Your task to perform on an android device: uninstall "ColorNote Notepad Notes" Image 0: 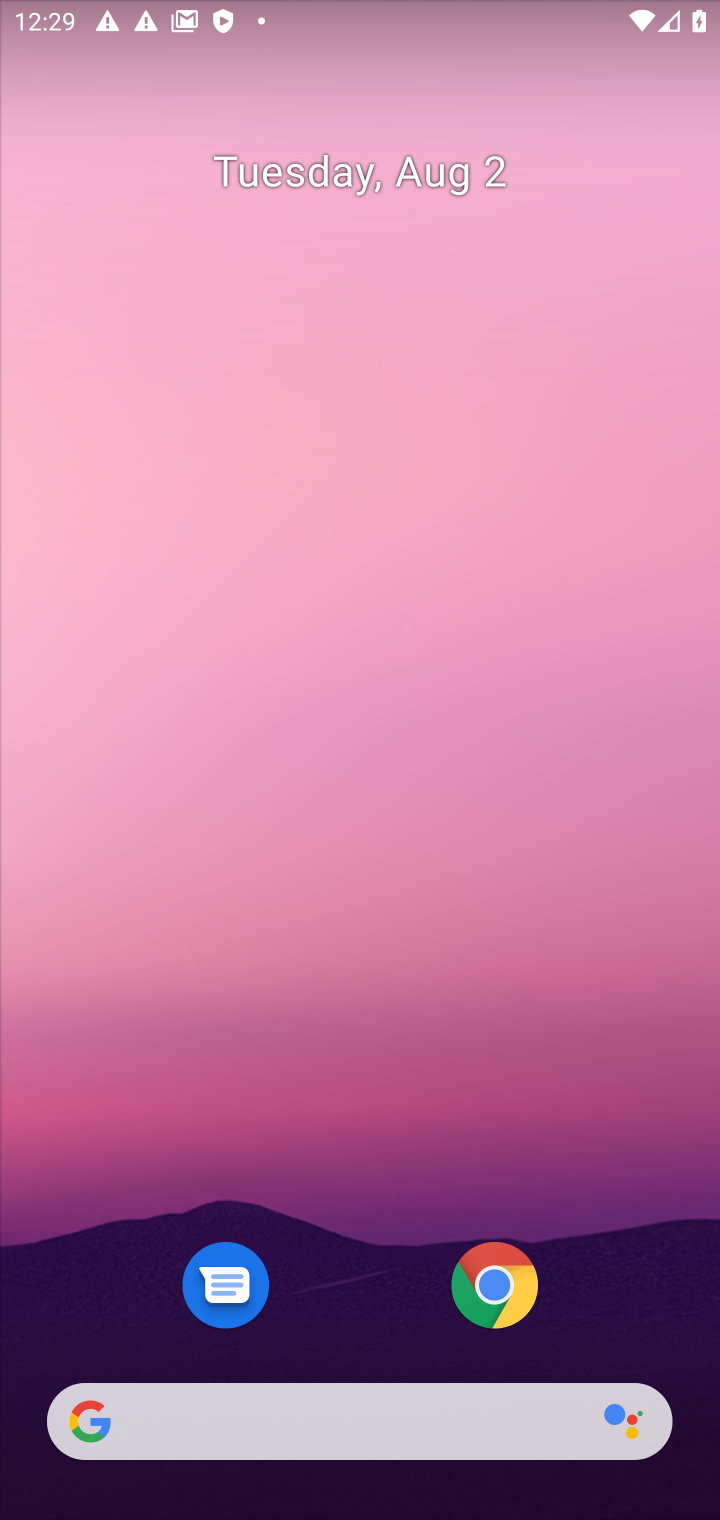
Step 0: drag from (511, 907) to (325, 6)
Your task to perform on an android device: uninstall "ColorNote Notepad Notes" Image 1: 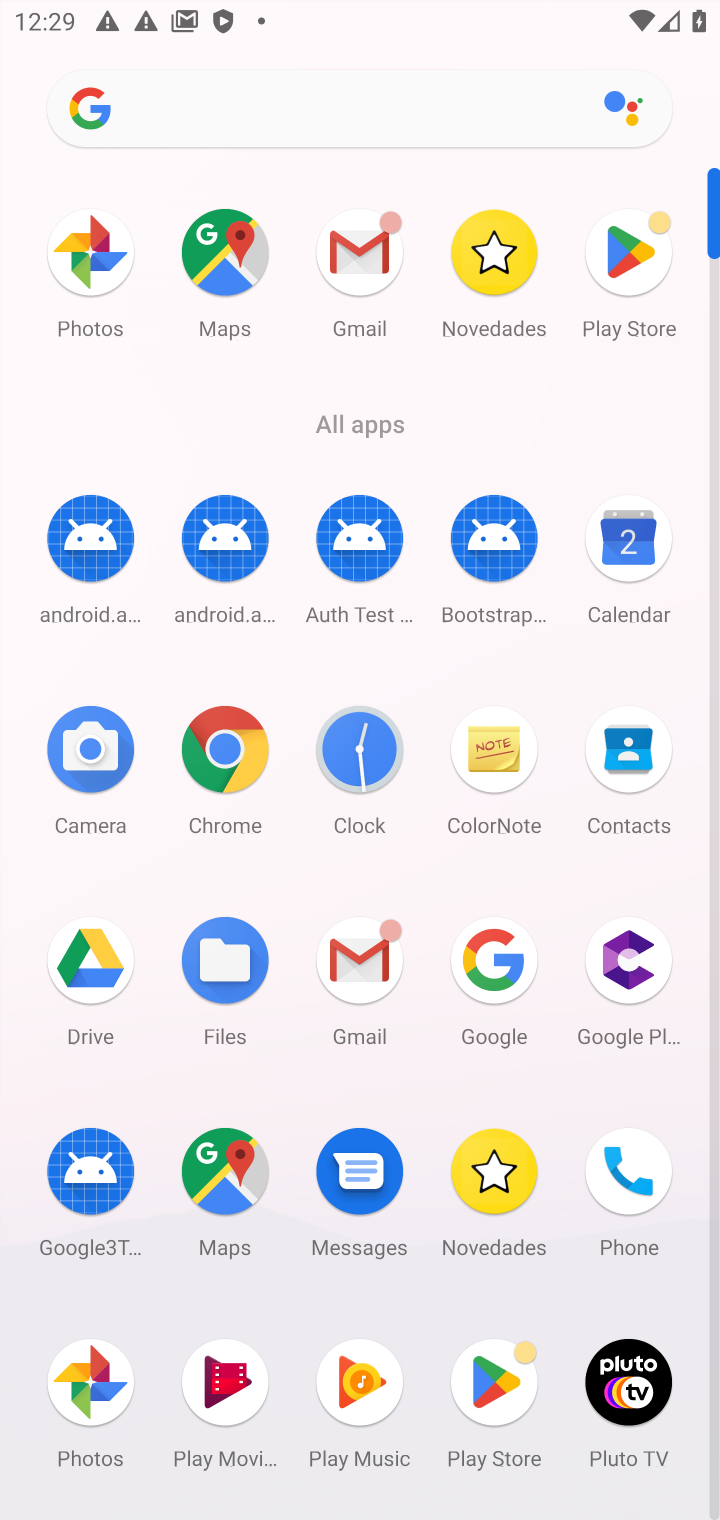
Step 1: click (501, 1381)
Your task to perform on an android device: uninstall "ColorNote Notepad Notes" Image 2: 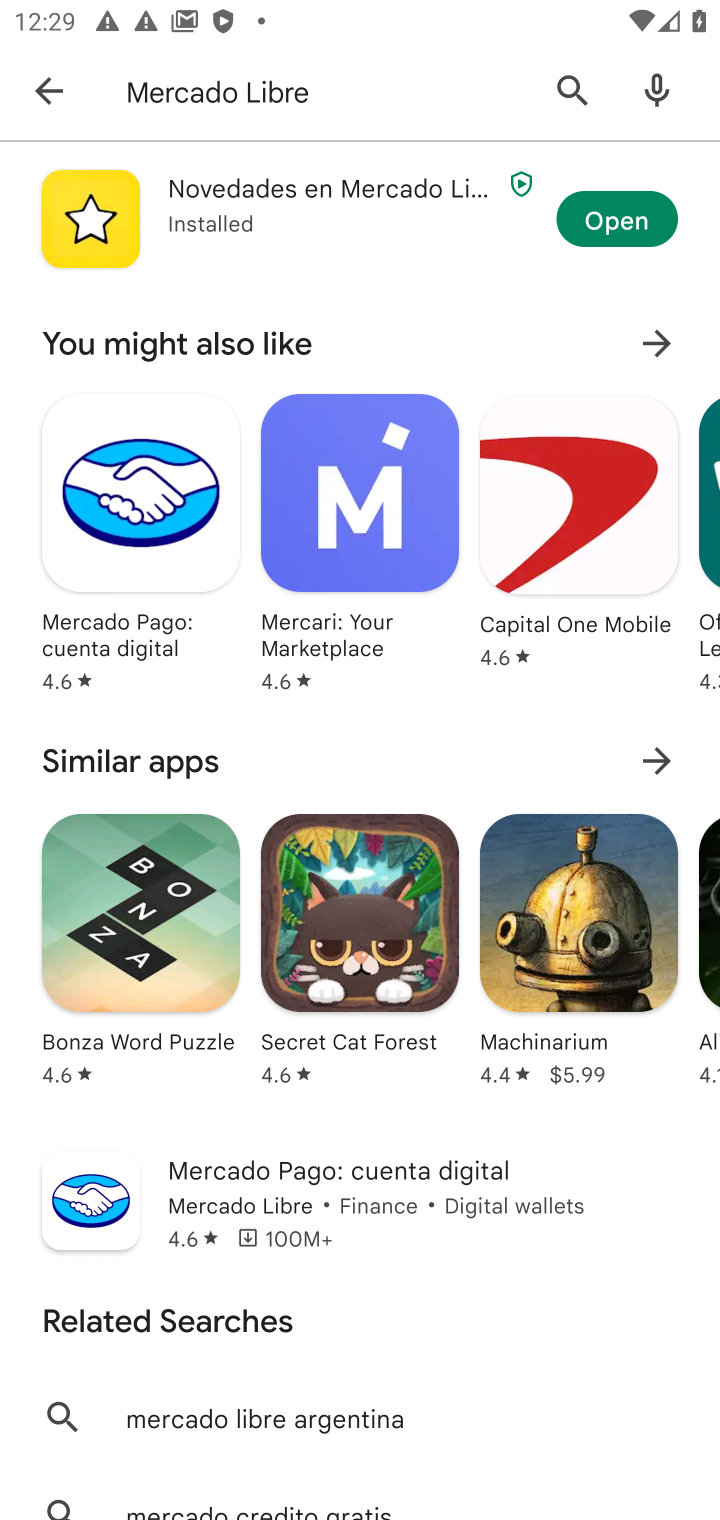
Step 2: click (325, 114)
Your task to perform on an android device: uninstall "ColorNote Notepad Notes" Image 3: 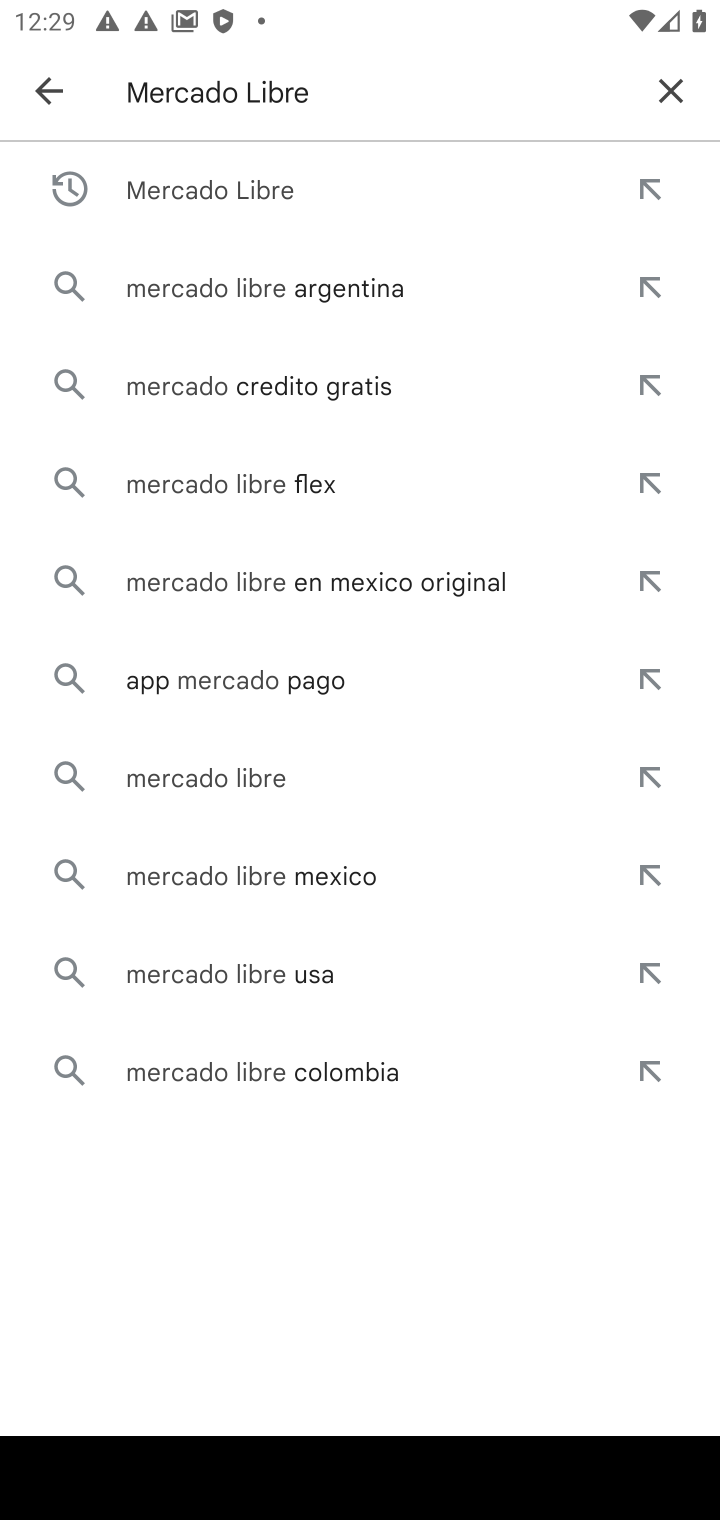
Step 3: click (682, 84)
Your task to perform on an android device: uninstall "ColorNote Notepad Notes" Image 4: 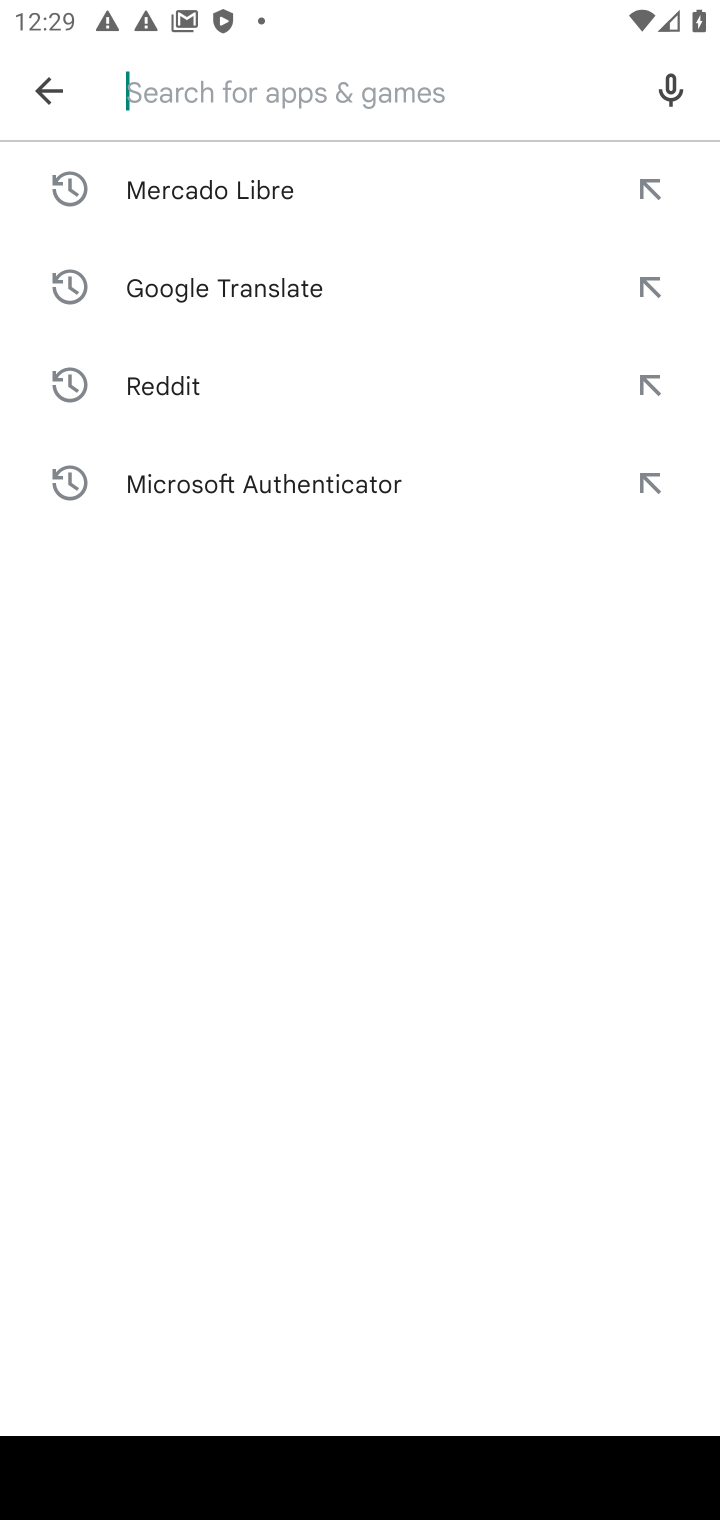
Step 4: type "ColorNote Notepad Notes"
Your task to perform on an android device: uninstall "ColorNote Notepad Notes" Image 5: 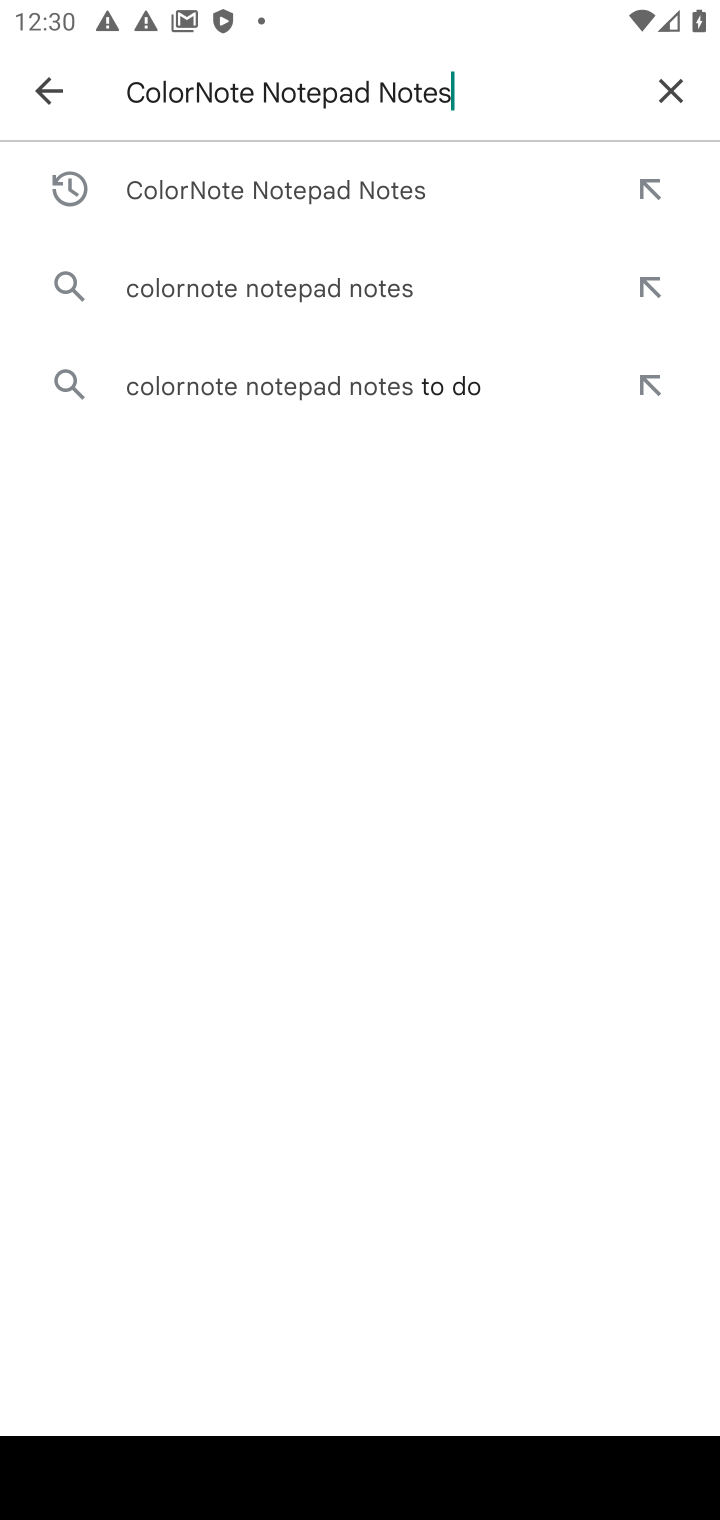
Step 5: press enter
Your task to perform on an android device: uninstall "ColorNote Notepad Notes" Image 6: 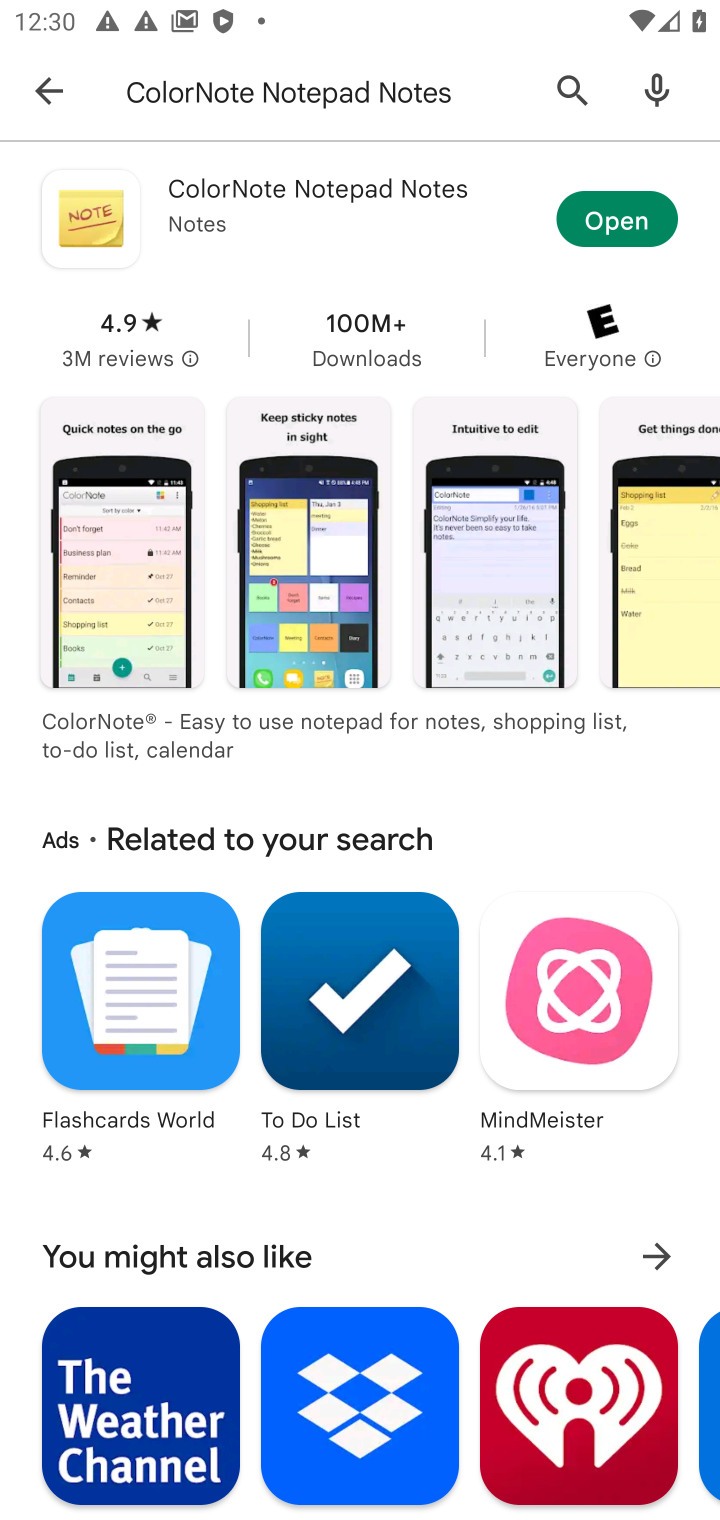
Step 6: click (285, 219)
Your task to perform on an android device: uninstall "ColorNote Notepad Notes" Image 7: 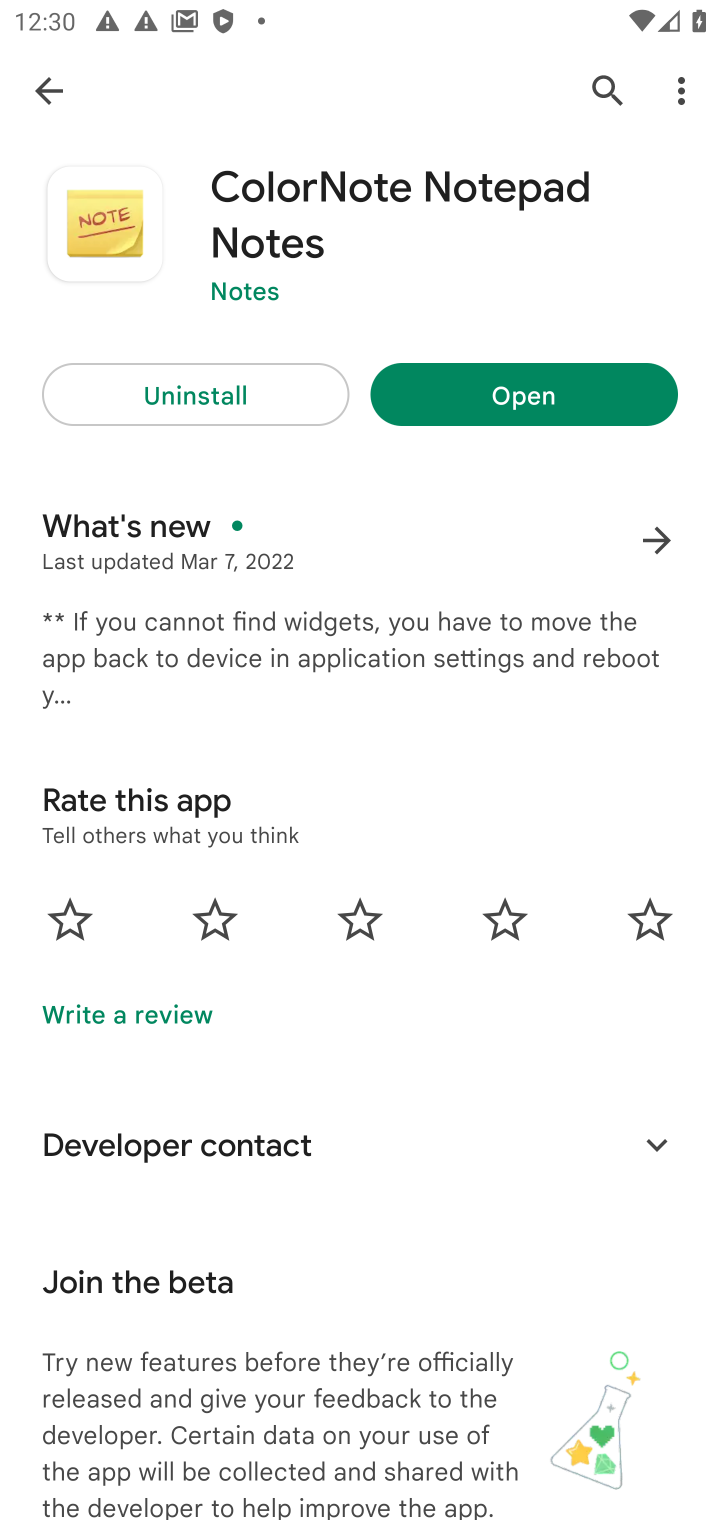
Step 7: click (232, 396)
Your task to perform on an android device: uninstall "ColorNote Notepad Notes" Image 8: 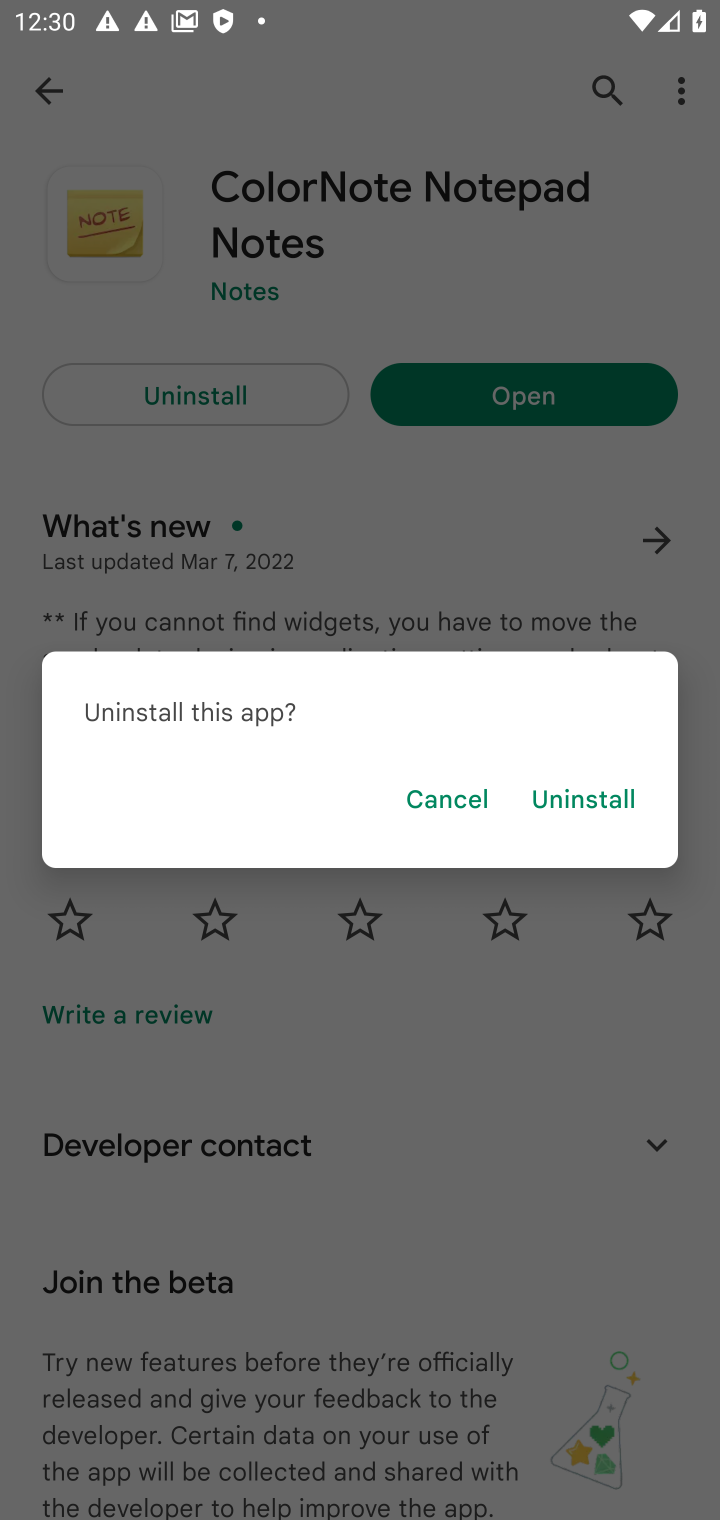
Step 8: click (610, 780)
Your task to perform on an android device: uninstall "ColorNote Notepad Notes" Image 9: 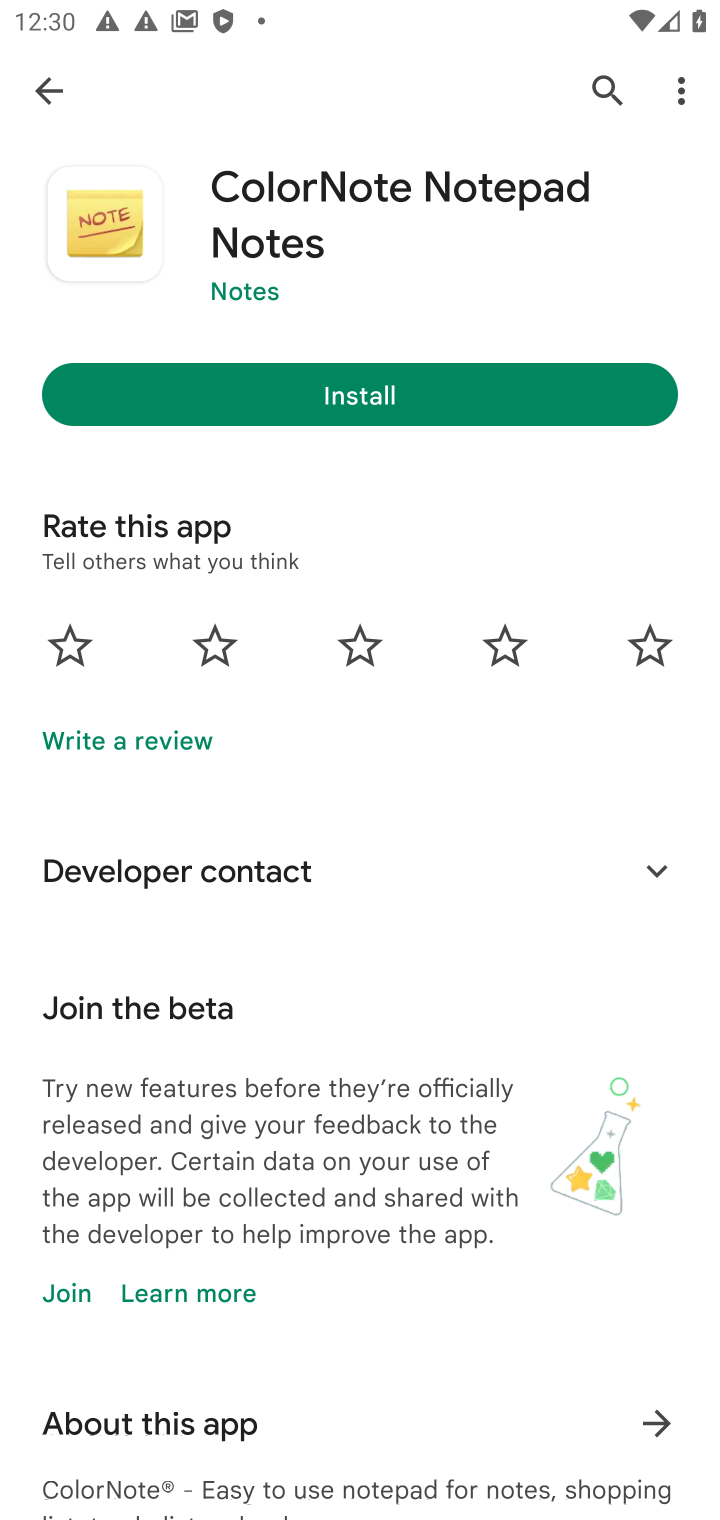
Step 9: task complete